Your task to perform on an android device: check data usage Image 0: 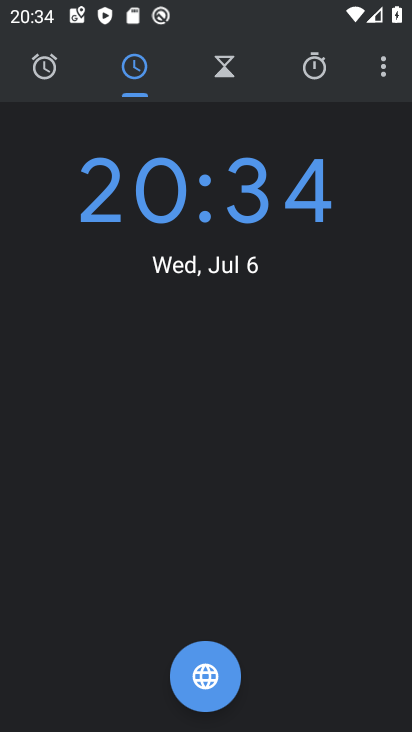
Step 0: press home button
Your task to perform on an android device: check data usage Image 1: 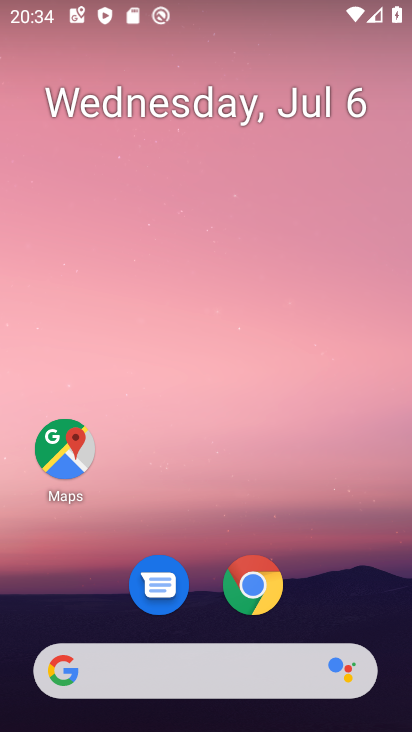
Step 1: drag from (219, 513) to (270, 0)
Your task to perform on an android device: check data usage Image 2: 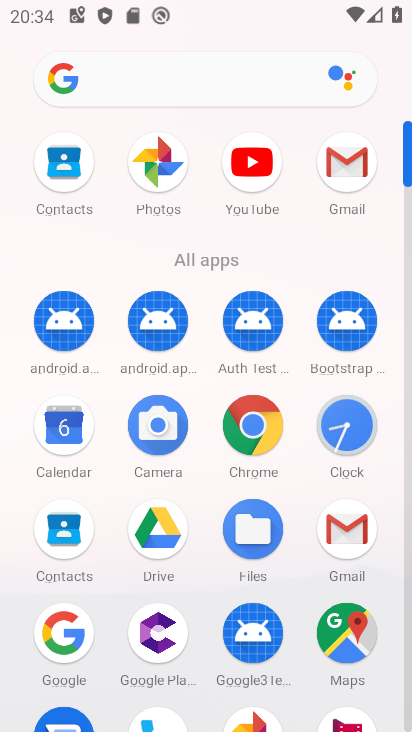
Step 2: drag from (209, 659) to (290, 116)
Your task to perform on an android device: check data usage Image 3: 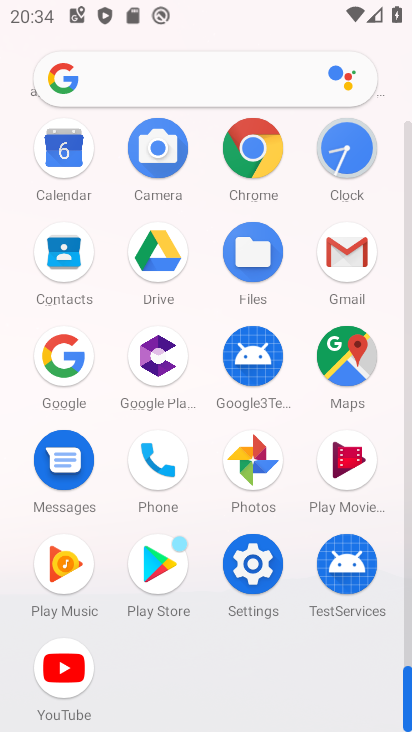
Step 3: click (251, 563)
Your task to perform on an android device: check data usage Image 4: 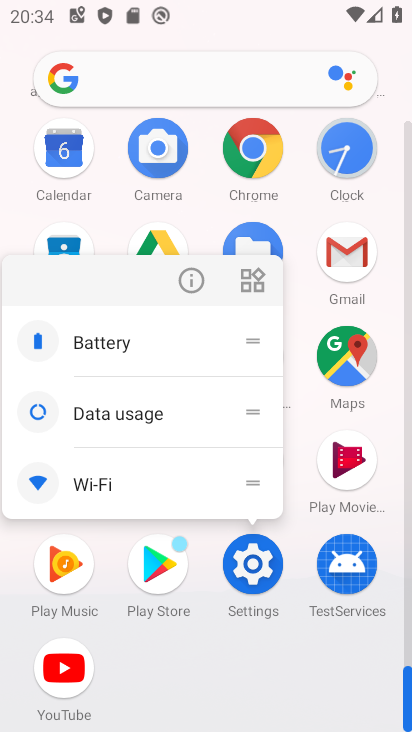
Step 4: click (251, 564)
Your task to perform on an android device: check data usage Image 5: 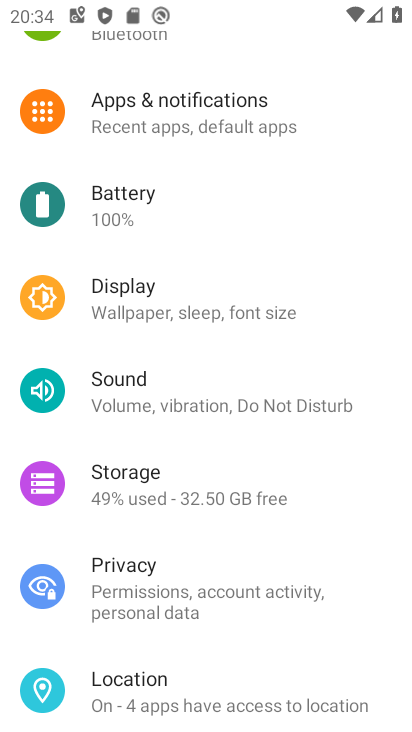
Step 5: drag from (240, 228) to (190, 659)
Your task to perform on an android device: check data usage Image 6: 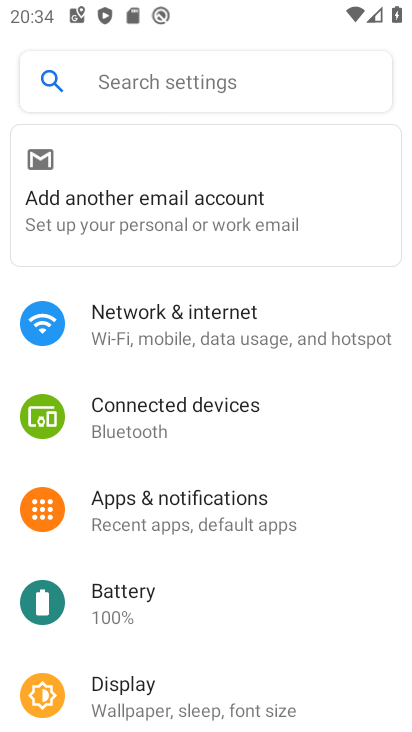
Step 6: click (238, 316)
Your task to perform on an android device: check data usage Image 7: 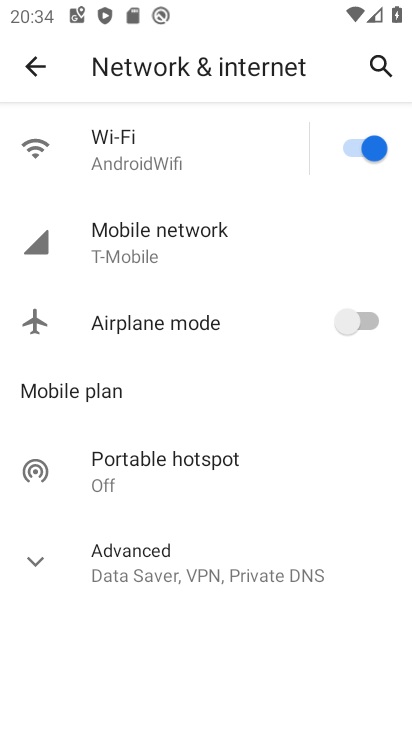
Step 7: click (205, 237)
Your task to perform on an android device: check data usage Image 8: 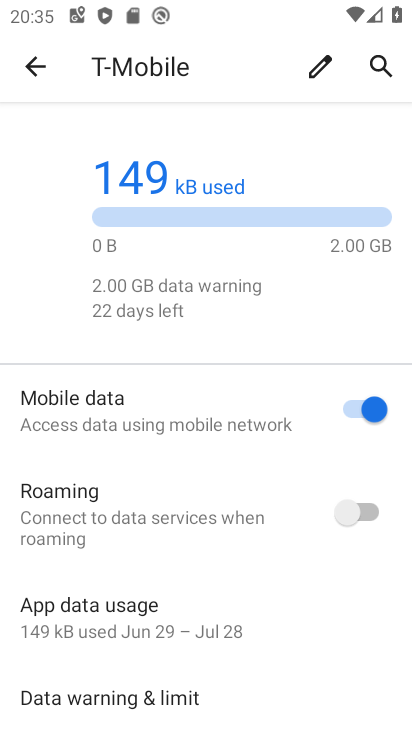
Step 8: task complete